Your task to perform on an android device: clear all cookies in the chrome app Image 0: 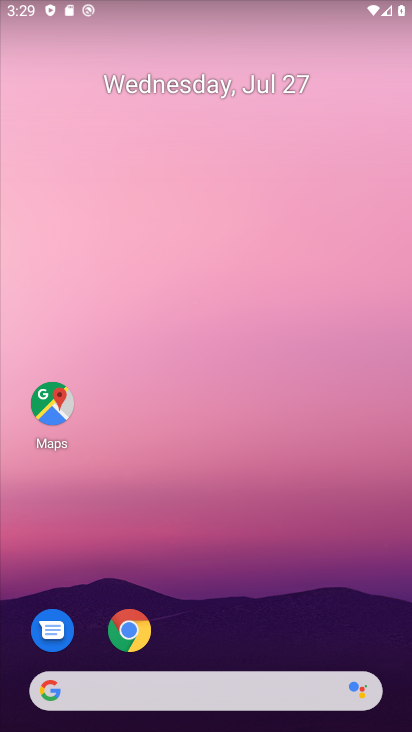
Step 0: press home button
Your task to perform on an android device: clear all cookies in the chrome app Image 1: 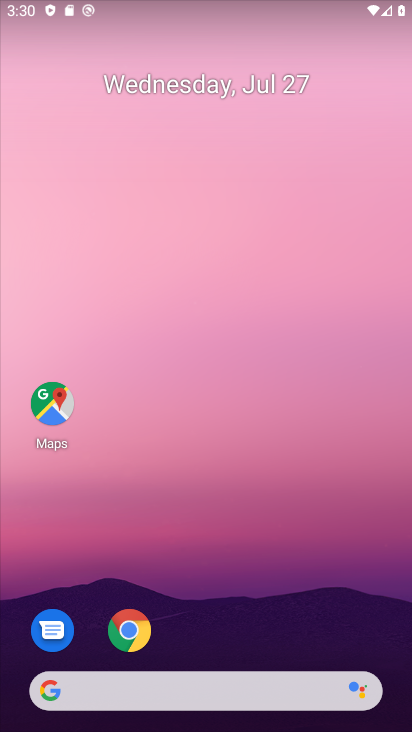
Step 1: click (129, 627)
Your task to perform on an android device: clear all cookies in the chrome app Image 2: 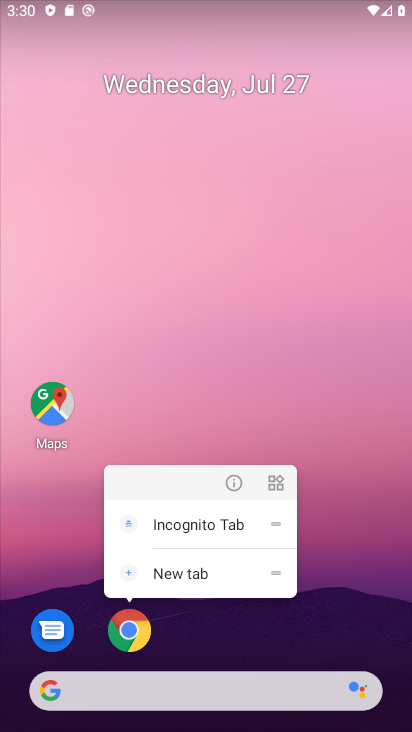
Step 2: click (288, 647)
Your task to perform on an android device: clear all cookies in the chrome app Image 3: 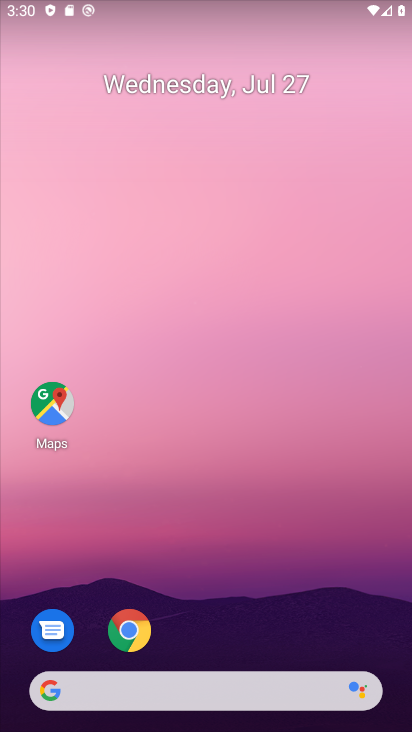
Step 3: drag from (327, 633) to (313, 119)
Your task to perform on an android device: clear all cookies in the chrome app Image 4: 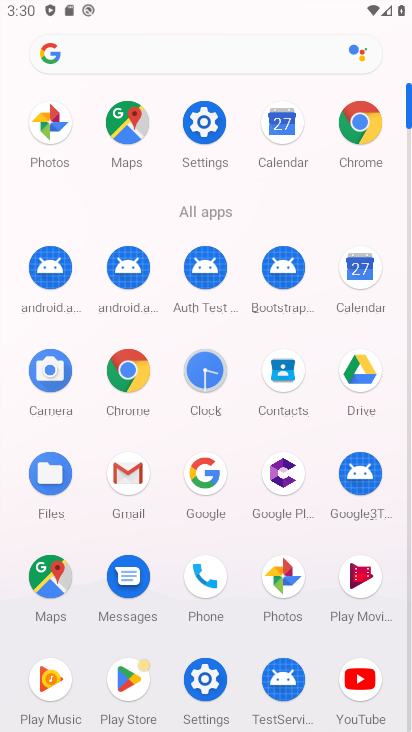
Step 4: click (359, 119)
Your task to perform on an android device: clear all cookies in the chrome app Image 5: 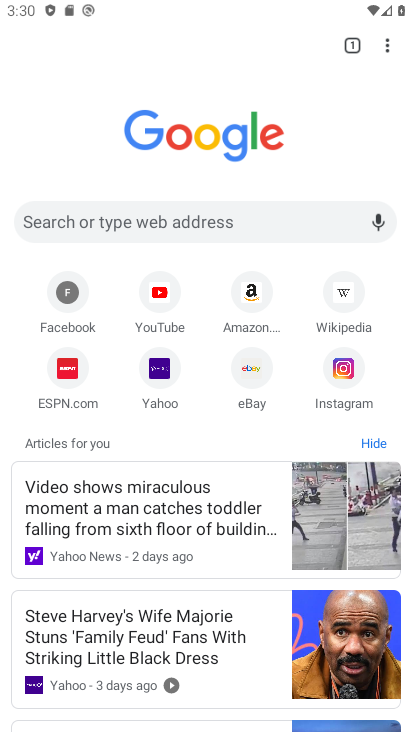
Step 5: click (381, 43)
Your task to perform on an android device: clear all cookies in the chrome app Image 6: 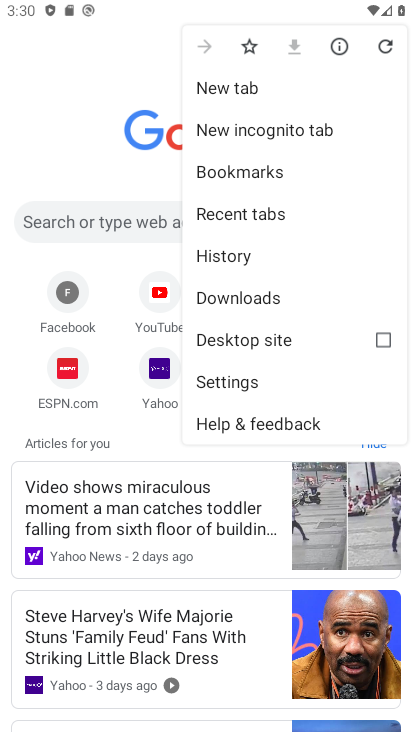
Step 6: click (259, 252)
Your task to perform on an android device: clear all cookies in the chrome app Image 7: 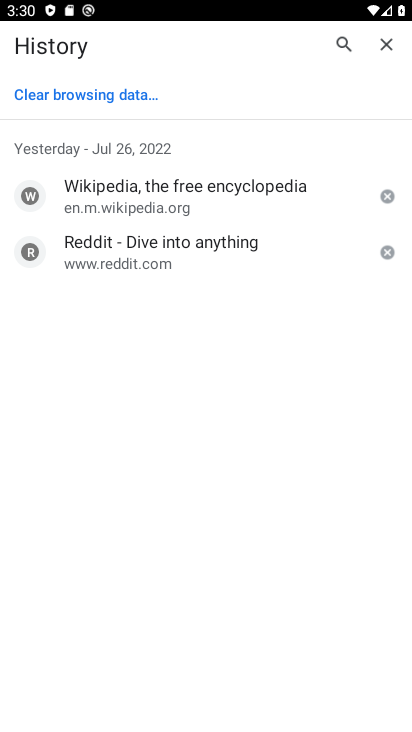
Step 7: click (84, 89)
Your task to perform on an android device: clear all cookies in the chrome app Image 8: 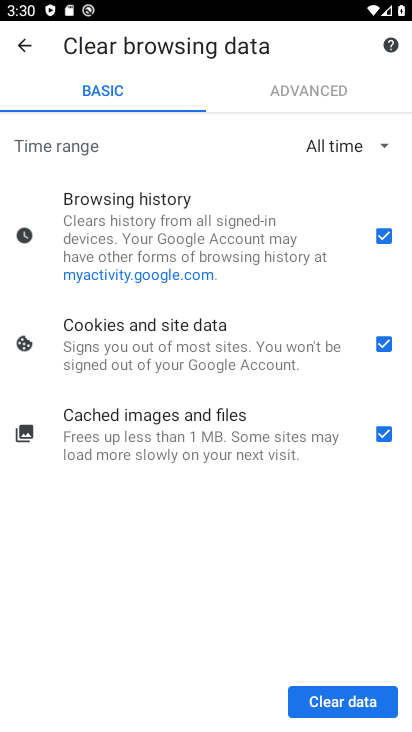
Step 8: click (376, 228)
Your task to perform on an android device: clear all cookies in the chrome app Image 9: 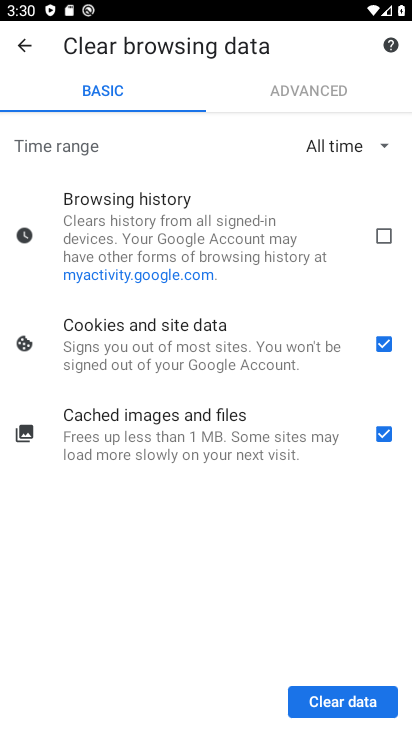
Step 9: click (384, 428)
Your task to perform on an android device: clear all cookies in the chrome app Image 10: 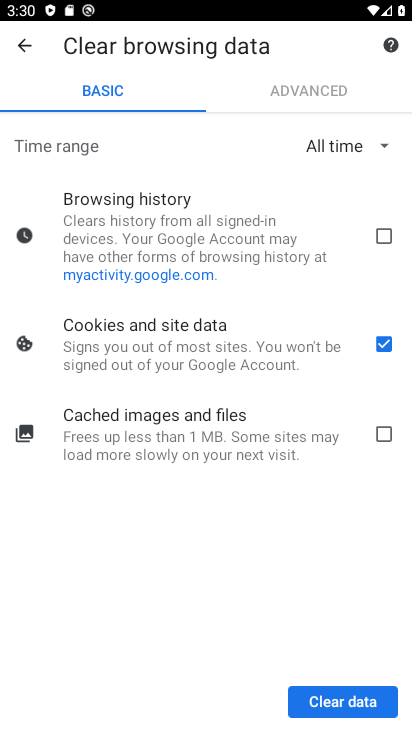
Step 10: click (339, 691)
Your task to perform on an android device: clear all cookies in the chrome app Image 11: 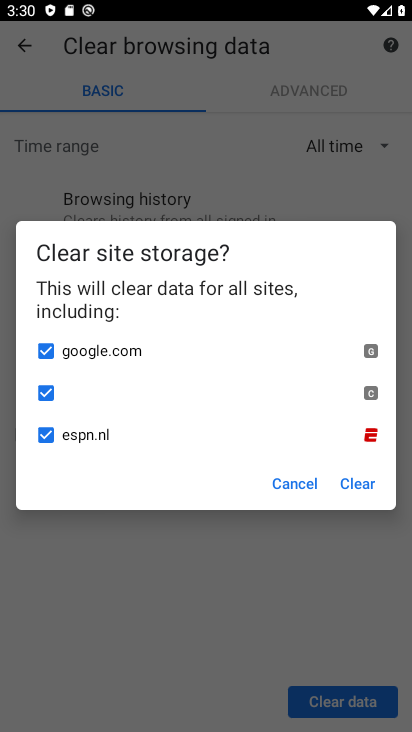
Step 11: click (362, 481)
Your task to perform on an android device: clear all cookies in the chrome app Image 12: 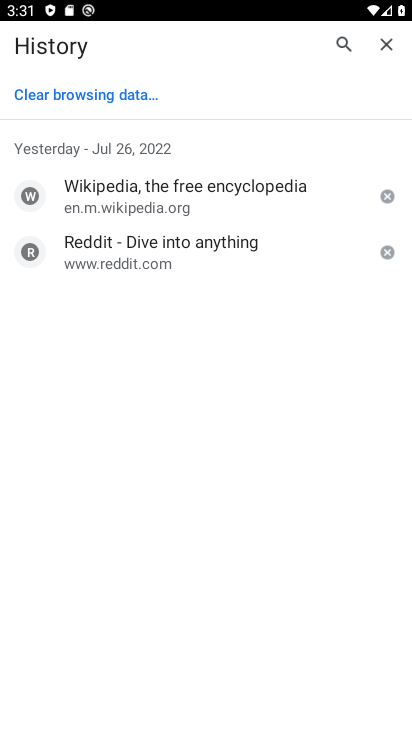
Step 12: task complete